Your task to perform on an android device: Open privacy settings Image 0: 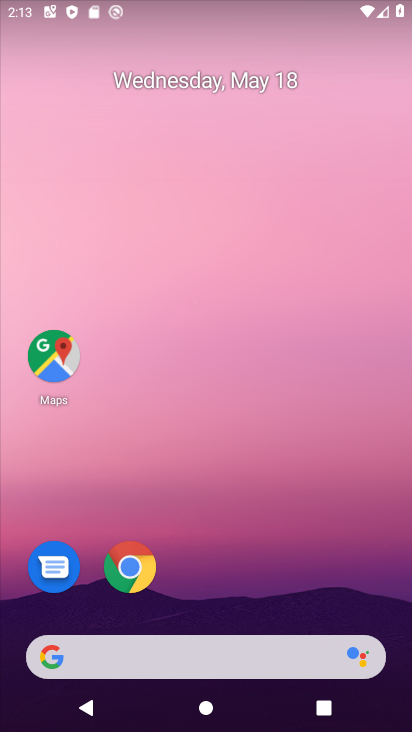
Step 0: drag from (221, 575) to (221, 240)
Your task to perform on an android device: Open privacy settings Image 1: 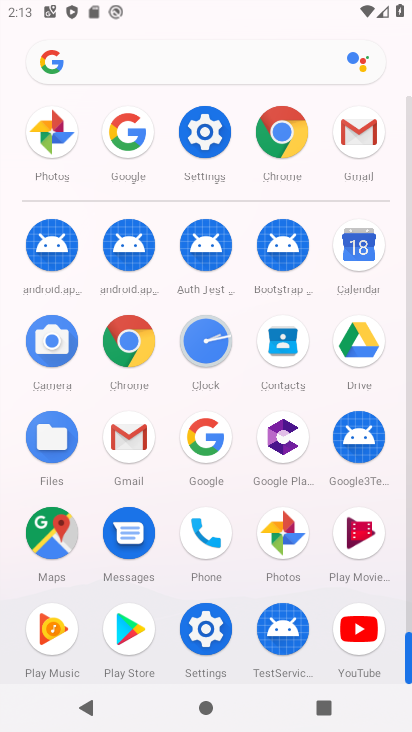
Step 1: click (192, 134)
Your task to perform on an android device: Open privacy settings Image 2: 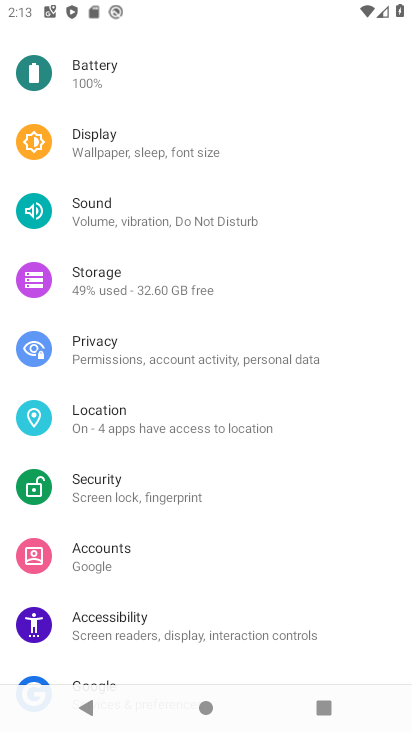
Step 2: click (156, 355)
Your task to perform on an android device: Open privacy settings Image 3: 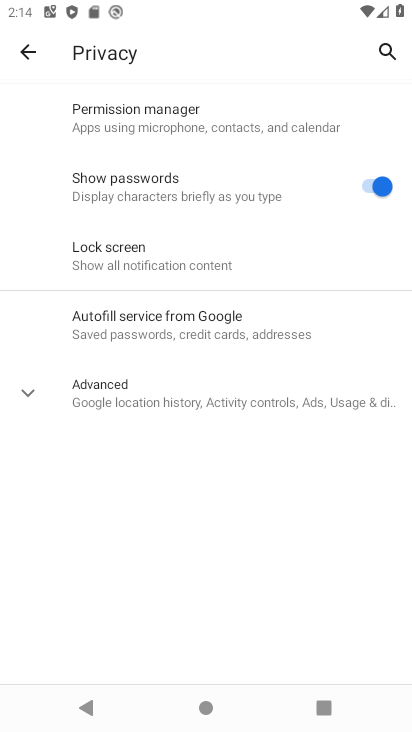
Step 3: task complete